Your task to perform on an android device: Open maps Image 0: 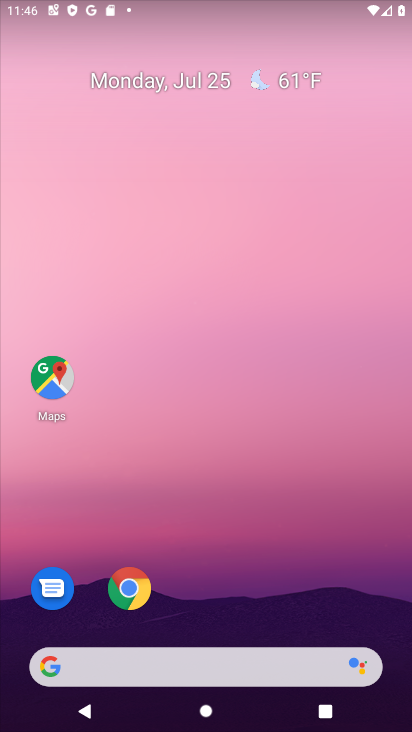
Step 0: press home button
Your task to perform on an android device: Open maps Image 1: 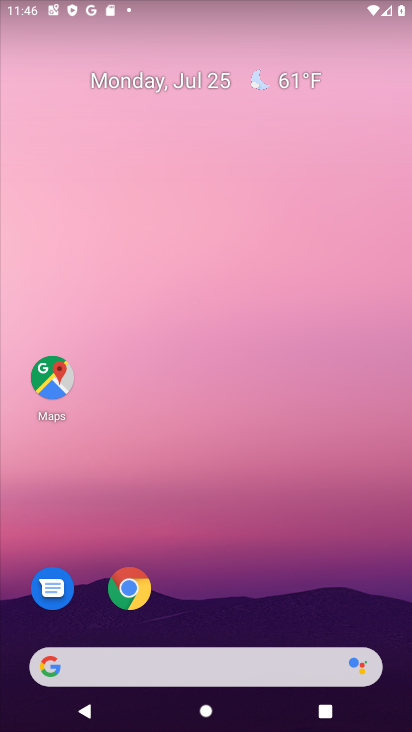
Step 1: click (52, 371)
Your task to perform on an android device: Open maps Image 2: 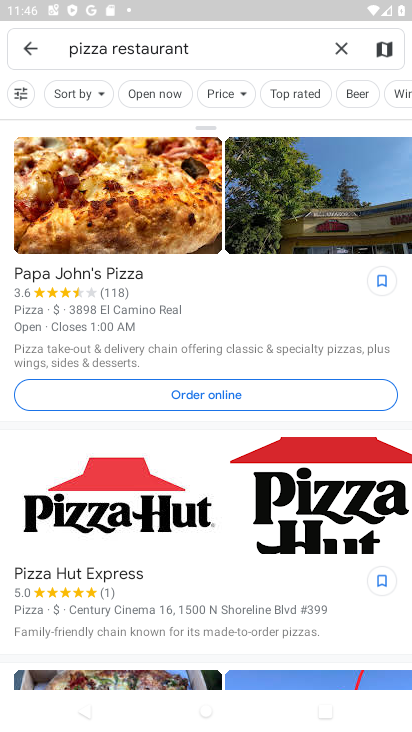
Step 2: click (28, 46)
Your task to perform on an android device: Open maps Image 3: 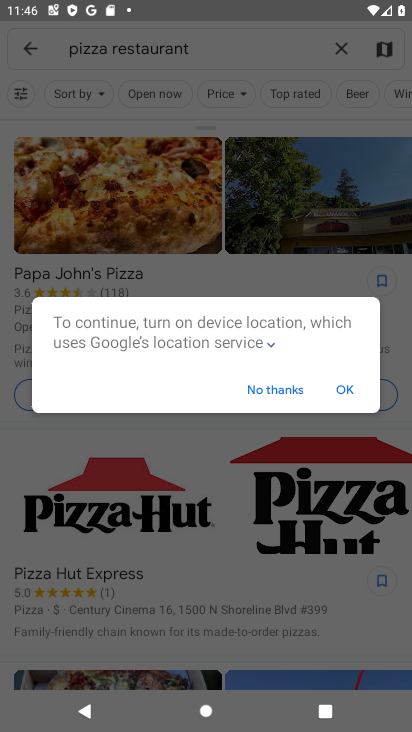
Step 3: click (344, 392)
Your task to perform on an android device: Open maps Image 4: 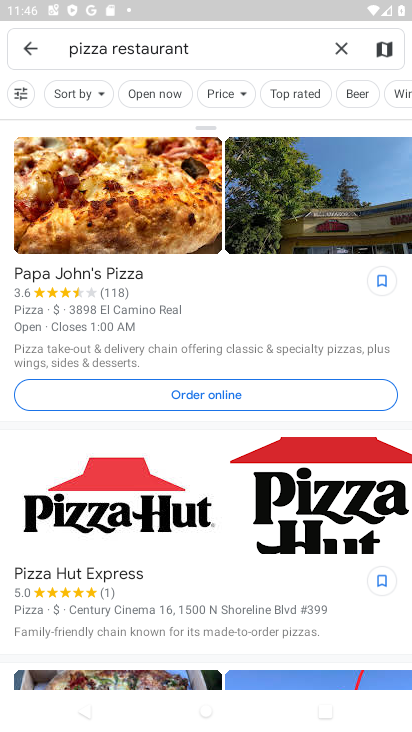
Step 4: click (24, 48)
Your task to perform on an android device: Open maps Image 5: 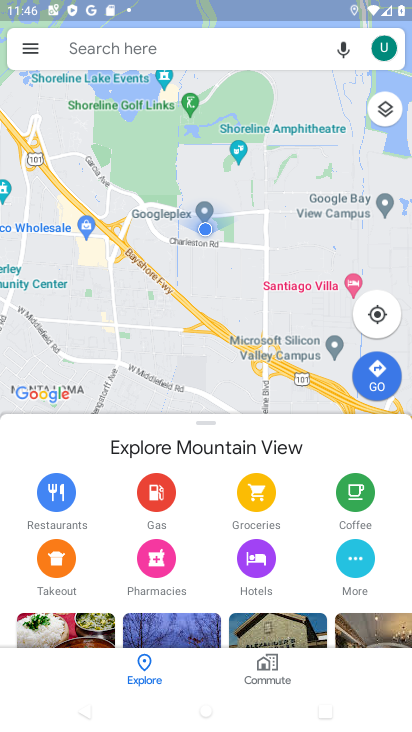
Step 5: task complete